Your task to perform on an android device: turn on sleep mode Image 0: 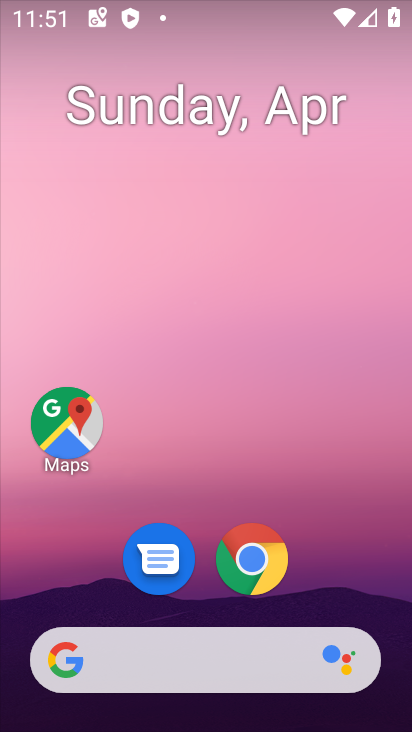
Step 0: drag from (364, 559) to (157, 133)
Your task to perform on an android device: turn on sleep mode Image 1: 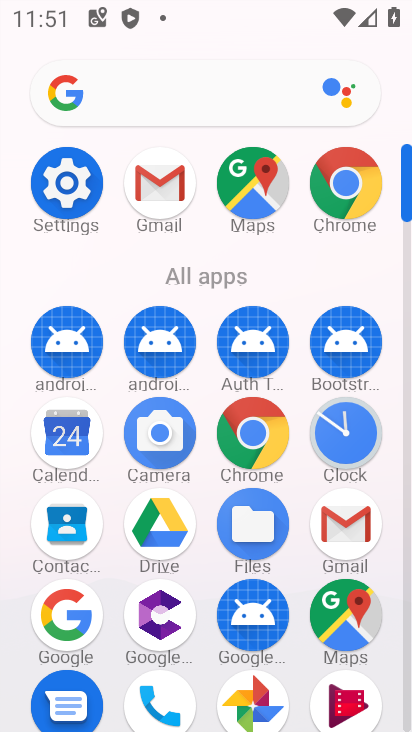
Step 1: click (50, 214)
Your task to perform on an android device: turn on sleep mode Image 2: 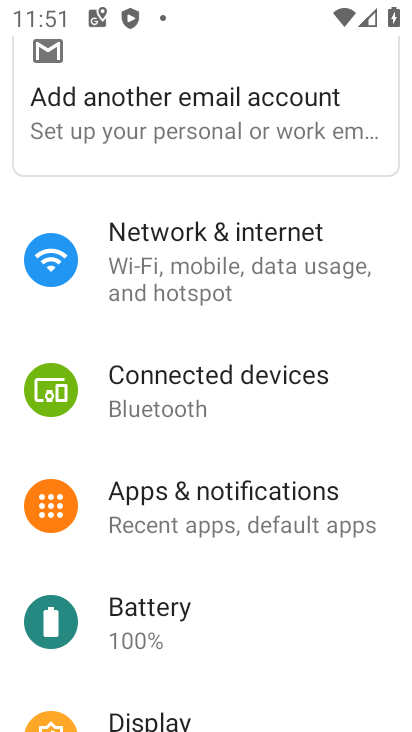
Step 2: drag from (216, 622) to (218, 397)
Your task to perform on an android device: turn on sleep mode Image 3: 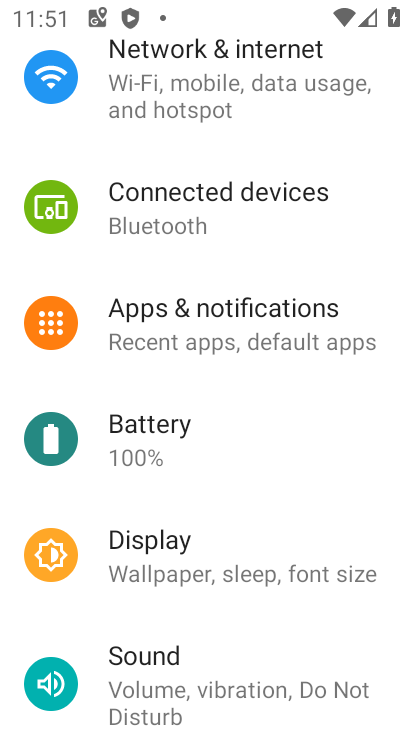
Step 3: click (240, 553)
Your task to perform on an android device: turn on sleep mode Image 4: 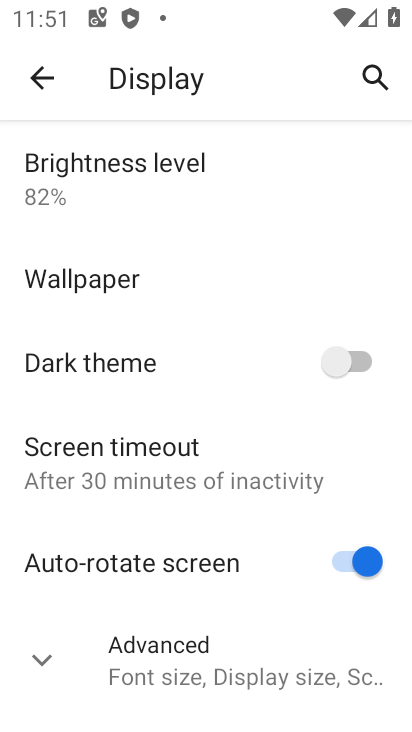
Step 4: click (191, 432)
Your task to perform on an android device: turn on sleep mode Image 5: 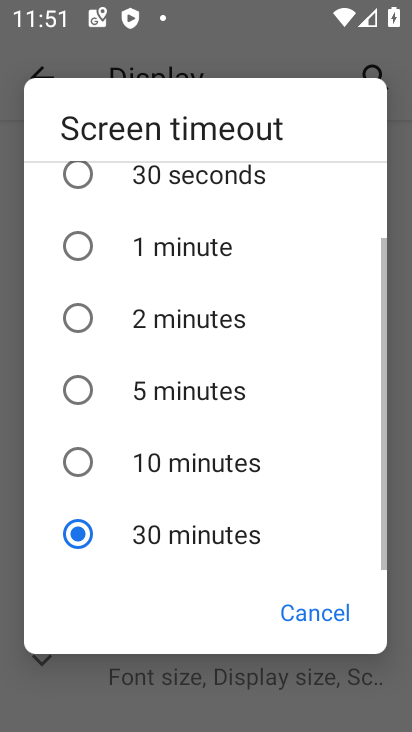
Step 5: click (269, 166)
Your task to perform on an android device: turn on sleep mode Image 6: 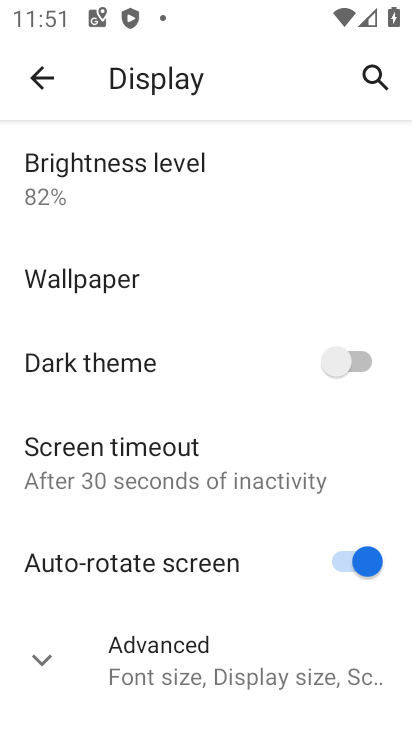
Step 6: task complete